Your task to perform on an android device: Show me the alarms in the clock app Image 0: 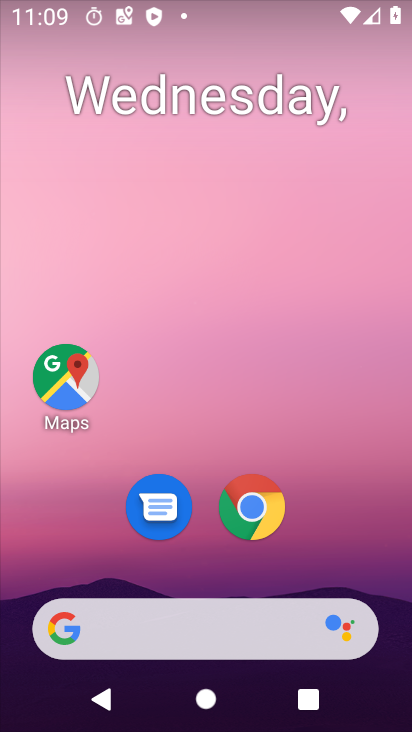
Step 0: drag from (195, 726) to (225, 115)
Your task to perform on an android device: Show me the alarms in the clock app Image 1: 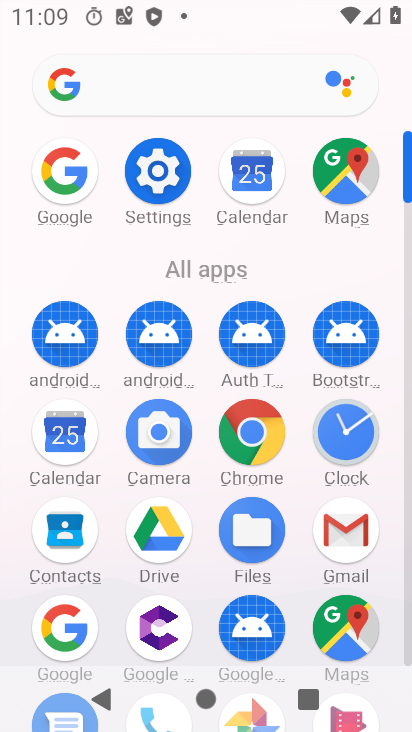
Step 1: click (351, 460)
Your task to perform on an android device: Show me the alarms in the clock app Image 2: 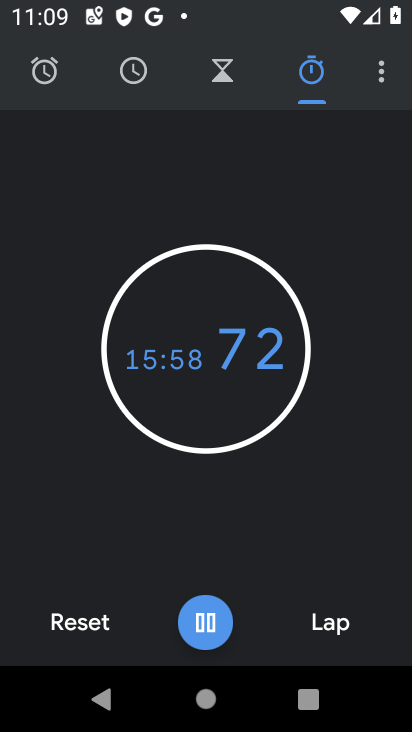
Step 2: click (49, 73)
Your task to perform on an android device: Show me the alarms in the clock app Image 3: 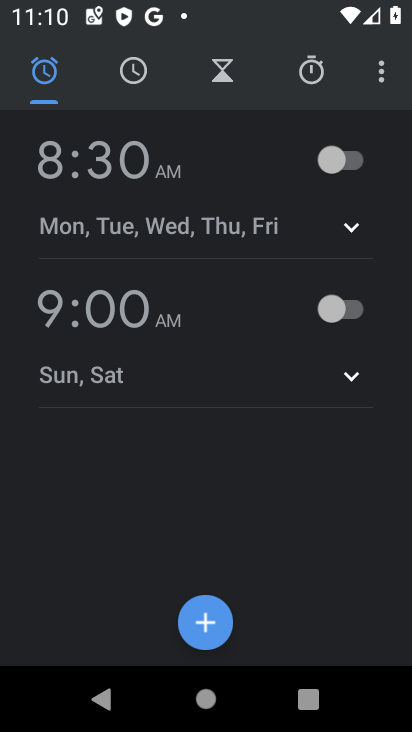
Step 3: task complete